Your task to perform on an android device: Open Google Chrome Image 0: 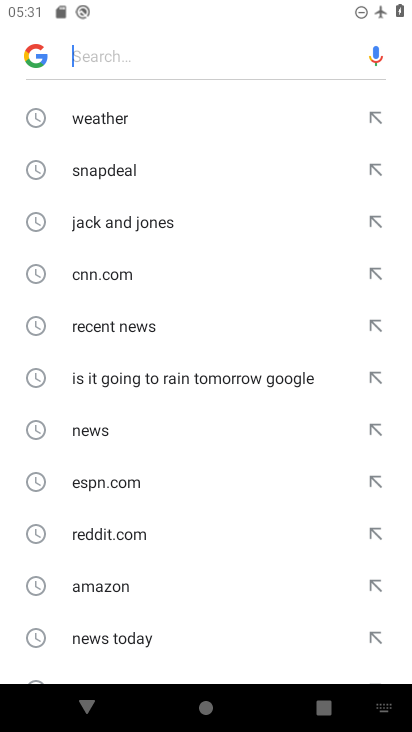
Step 0: press home button
Your task to perform on an android device: Open Google Chrome Image 1: 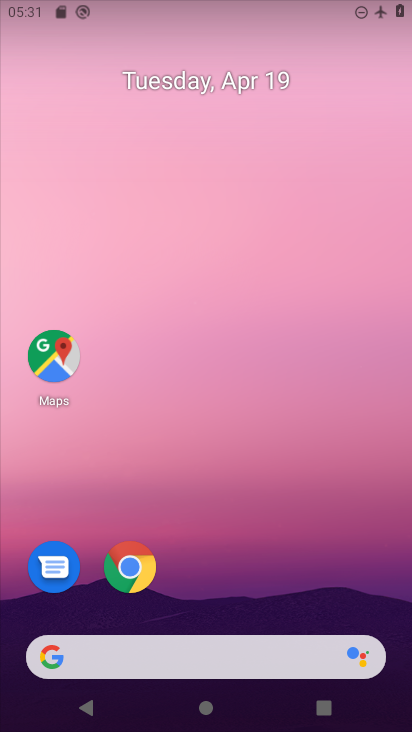
Step 1: drag from (253, 687) to (224, 151)
Your task to perform on an android device: Open Google Chrome Image 2: 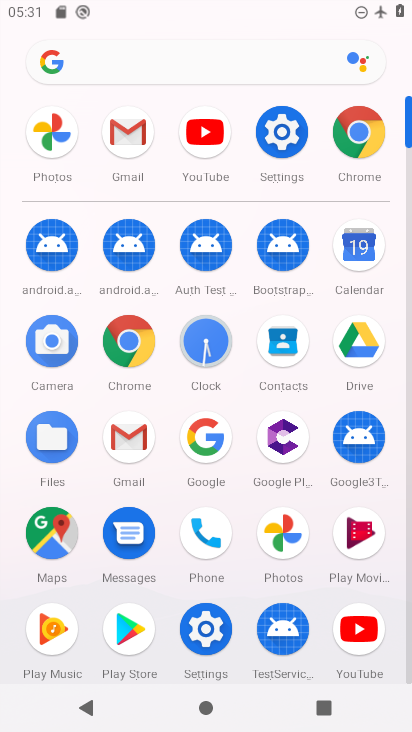
Step 2: click (129, 362)
Your task to perform on an android device: Open Google Chrome Image 3: 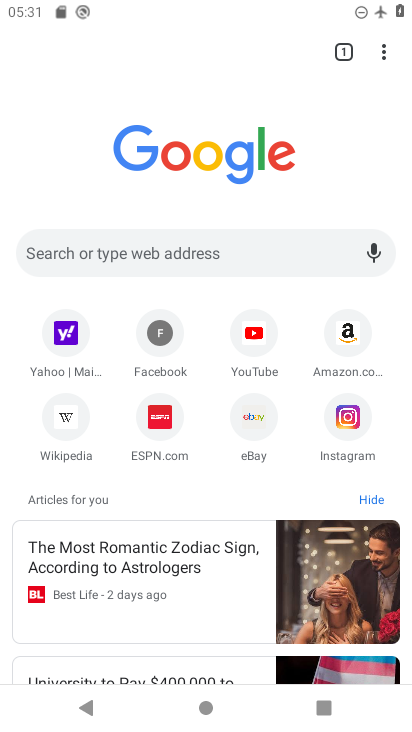
Step 3: task complete